Your task to perform on an android device: What is the recent news? Image 0: 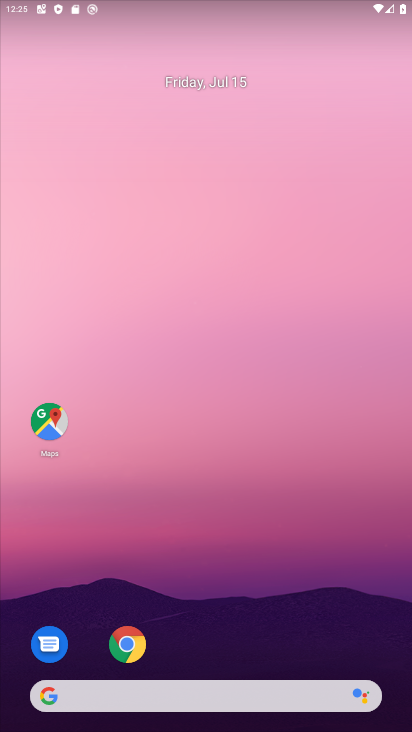
Step 0: click (103, 700)
Your task to perform on an android device: What is the recent news? Image 1: 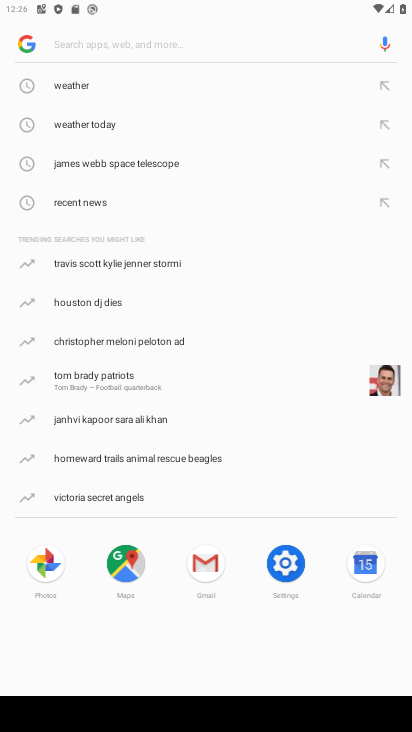
Step 1: click (88, 206)
Your task to perform on an android device: What is the recent news? Image 2: 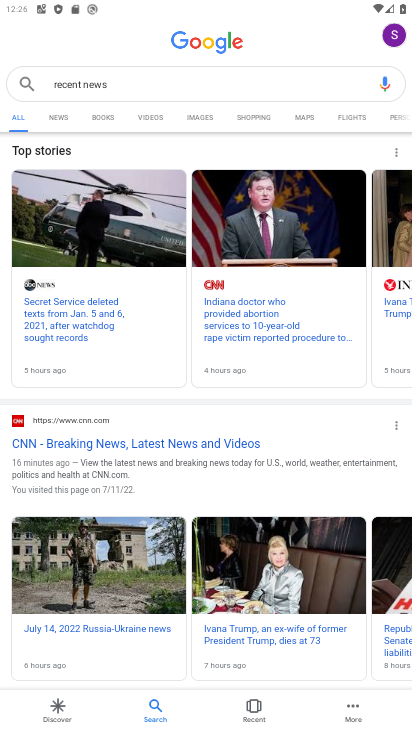
Step 2: task complete